Your task to perform on an android device: Open CNN.com Image 0: 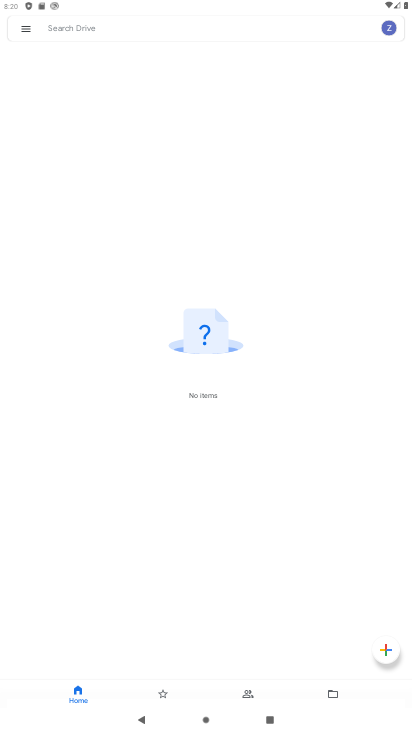
Step 0: press home button
Your task to perform on an android device: Open CNN.com Image 1: 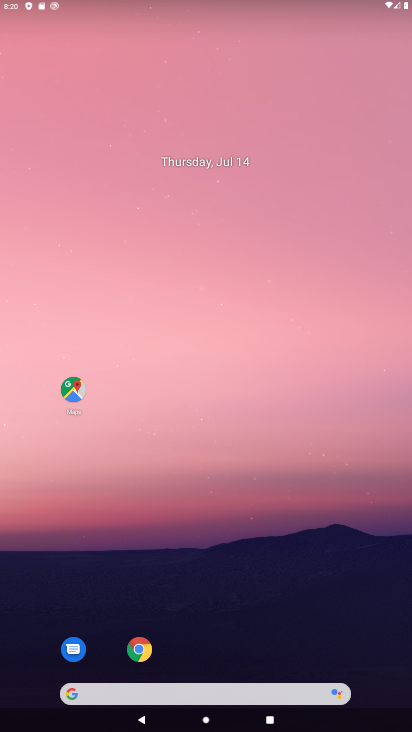
Step 1: click (150, 657)
Your task to perform on an android device: Open CNN.com Image 2: 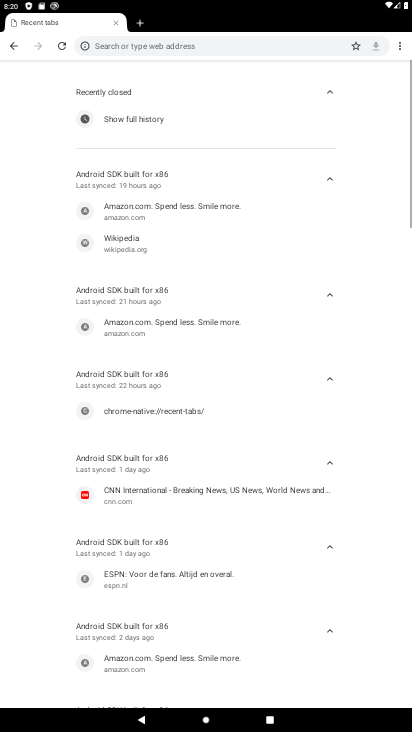
Step 2: click (142, 20)
Your task to perform on an android device: Open CNN.com Image 3: 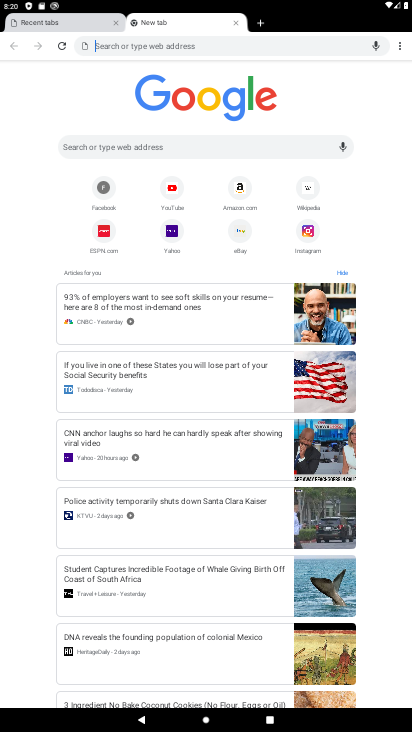
Step 3: click (177, 154)
Your task to perform on an android device: Open CNN.com Image 4: 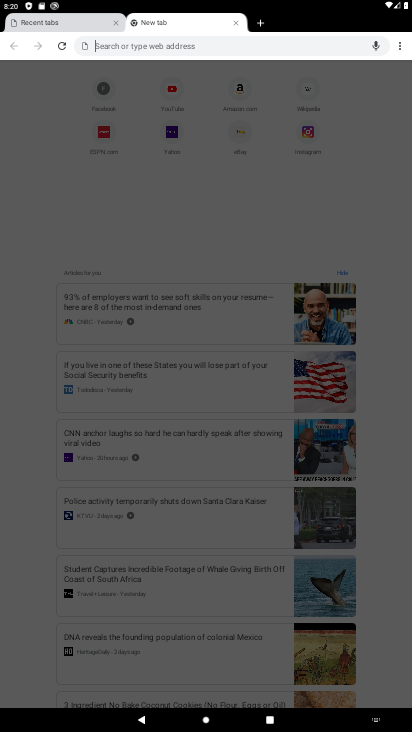
Step 4: type "CNN.com"
Your task to perform on an android device: Open CNN.com Image 5: 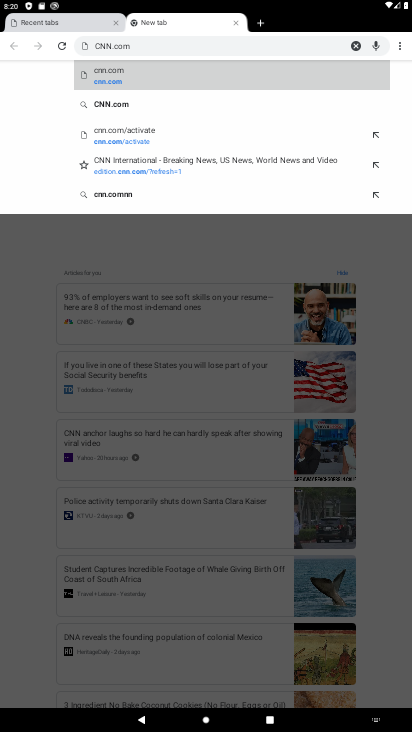
Step 5: click (143, 78)
Your task to perform on an android device: Open CNN.com Image 6: 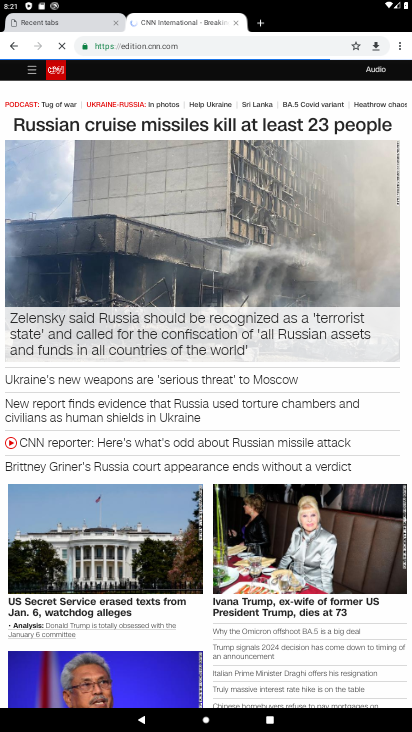
Step 6: task complete